Your task to perform on an android device: turn on priority inbox in the gmail app Image 0: 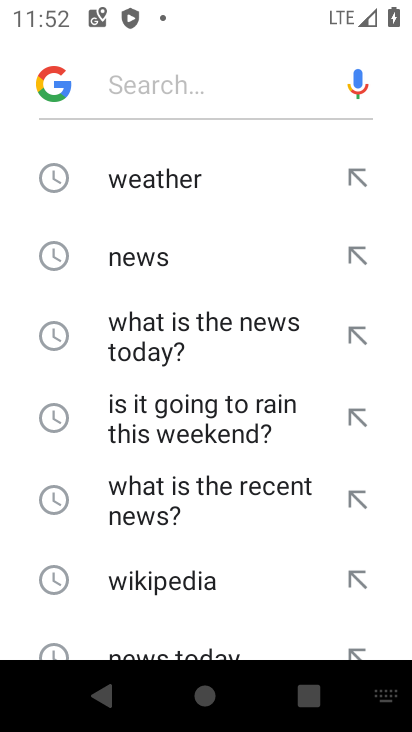
Step 0: press back button
Your task to perform on an android device: turn on priority inbox in the gmail app Image 1: 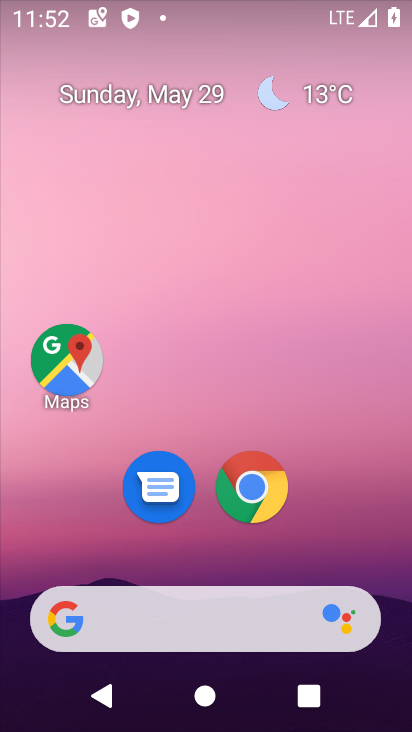
Step 1: drag from (355, 566) to (355, 87)
Your task to perform on an android device: turn on priority inbox in the gmail app Image 2: 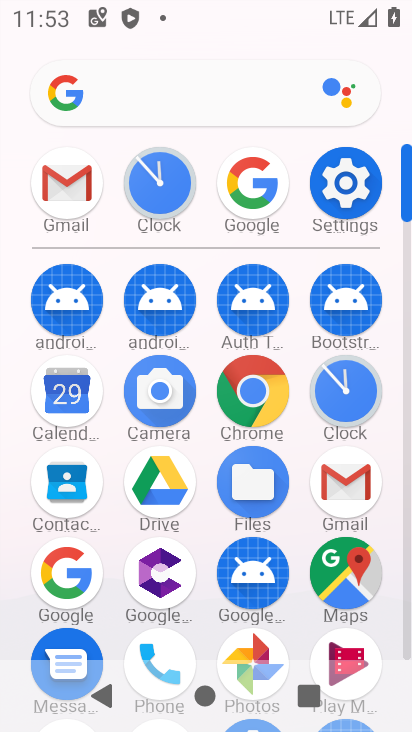
Step 2: click (336, 494)
Your task to perform on an android device: turn on priority inbox in the gmail app Image 3: 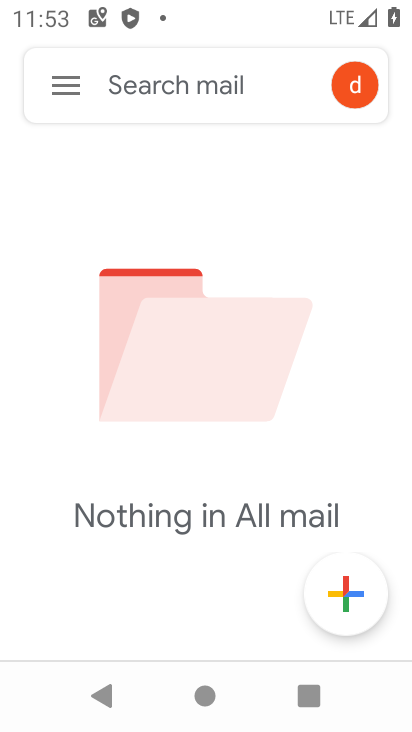
Step 3: click (74, 75)
Your task to perform on an android device: turn on priority inbox in the gmail app Image 4: 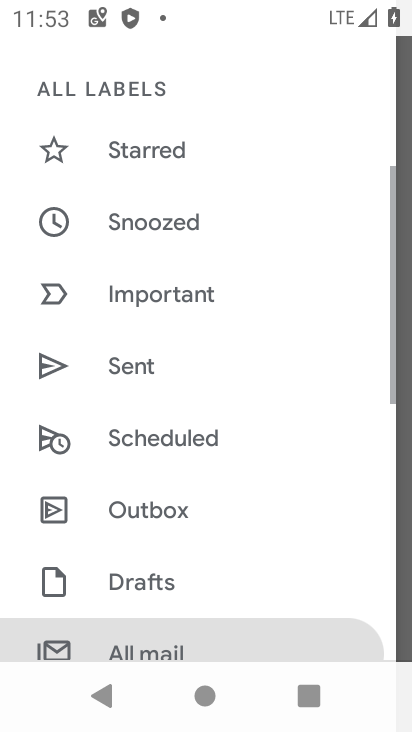
Step 4: drag from (202, 604) to (207, 183)
Your task to perform on an android device: turn on priority inbox in the gmail app Image 5: 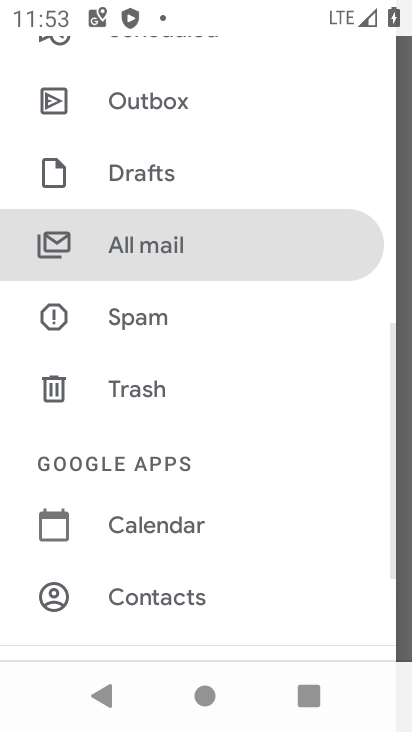
Step 5: drag from (158, 603) to (142, 296)
Your task to perform on an android device: turn on priority inbox in the gmail app Image 6: 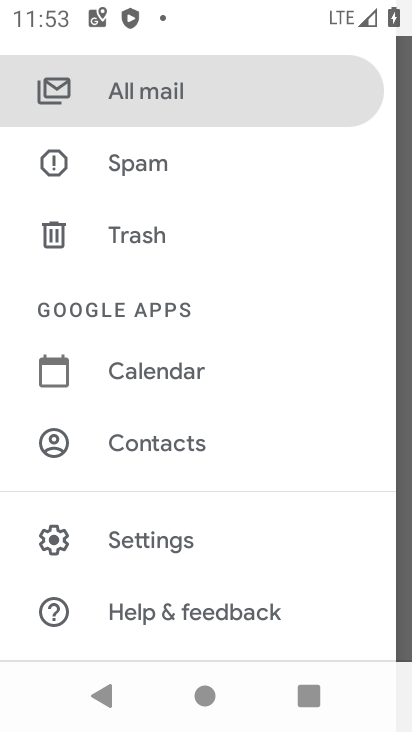
Step 6: click (144, 548)
Your task to perform on an android device: turn on priority inbox in the gmail app Image 7: 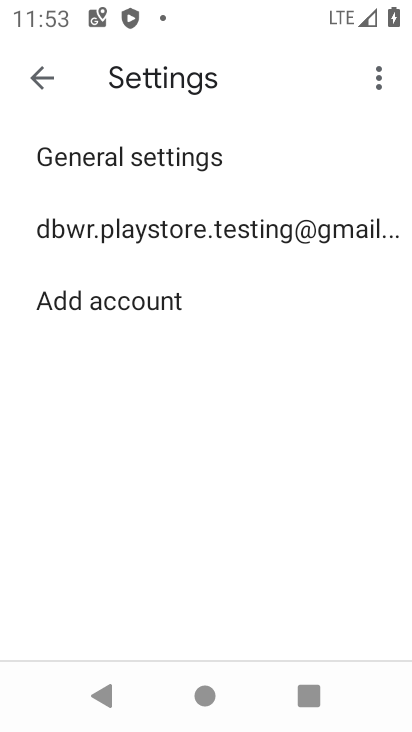
Step 7: click (160, 237)
Your task to perform on an android device: turn on priority inbox in the gmail app Image 8: 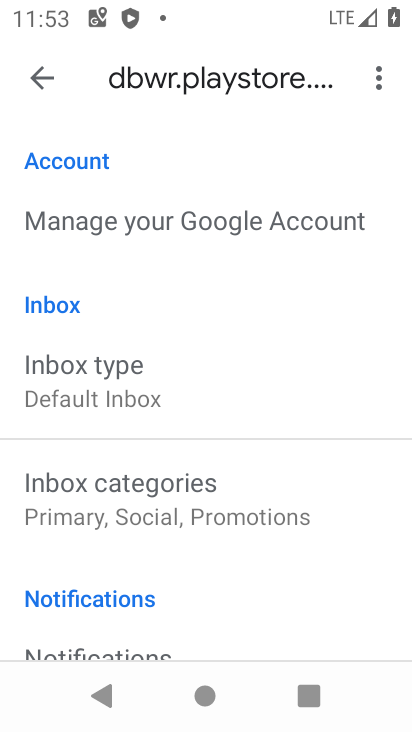
Step 8: click (131, 403)
Your task to perform on an android device: turn on priority inbox in the gmail app Image 9: 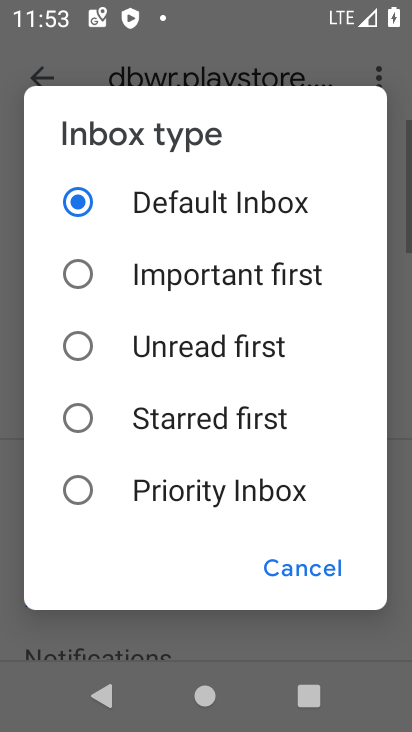
Step 9: click (132, 499)
Your task to perform on an android device: turn on priority inbox in the gmail app Image 10: 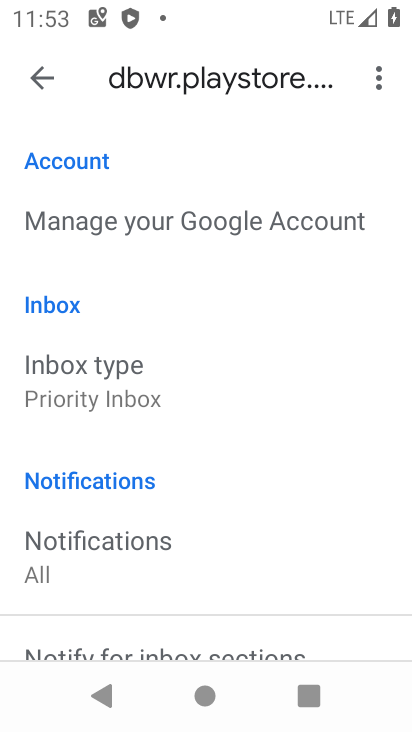
Step 10: task complete